Your task to perform on an android device: check data usage Image 0: 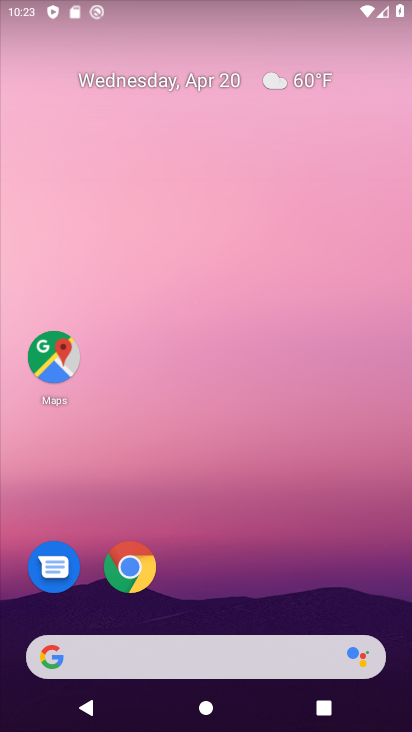
Step 0: drag from (304, 476) to (165, 0)
Your task to perform on an android device: check data usage Image 1: 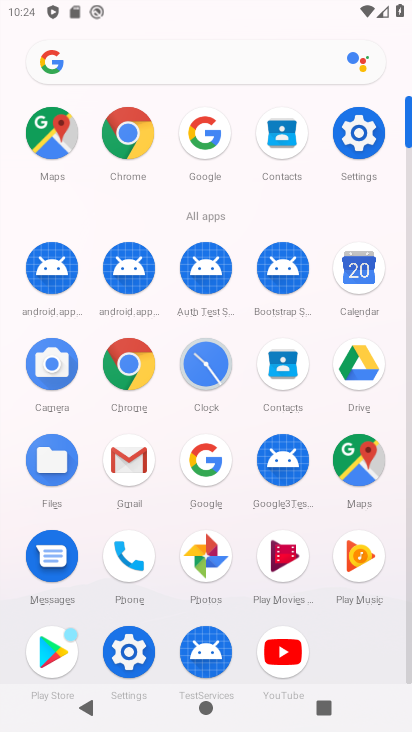
Step 1: click (354, 140)
Your task to perform on an android device: check data usage Image 2: 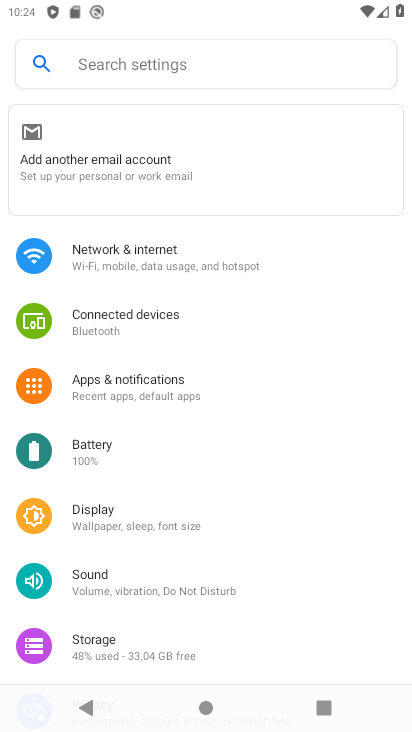
Step 2: click (120, 260)
Your task to perform on an android device: check data usage Image 3: 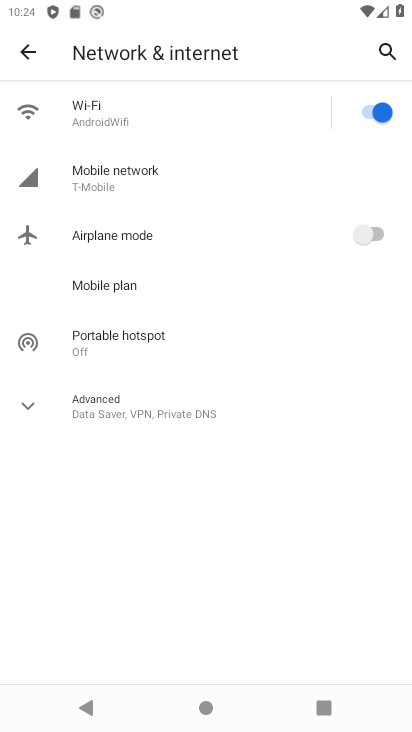
Step 3: click (111, 187)
Your task to perform on an android device: check data usage Image 4: 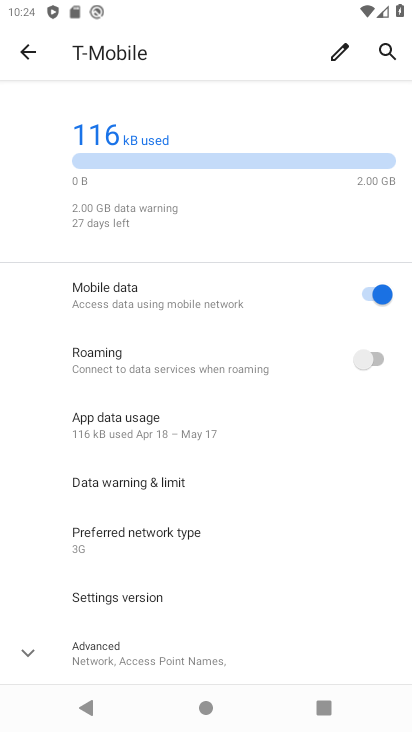
Step 4: task complete